Your task to perform on an android device: toggle pop-ups in chrome Image 0: 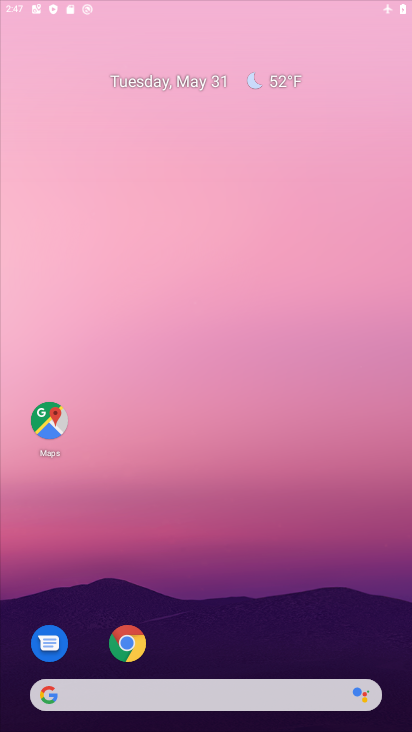
Step 0: press home button
Your task to perform on an android device: toggle pop-ups in chrome Image 1: 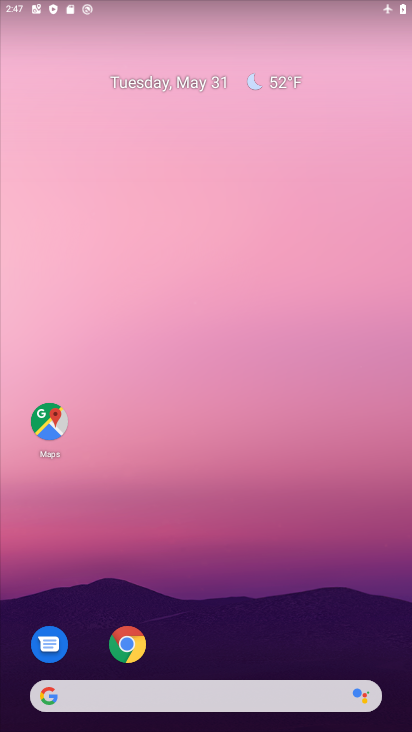
Step 1: click (135, 646)
Your task to perform on an android device: toggle pop-ups in chrome Image 2: 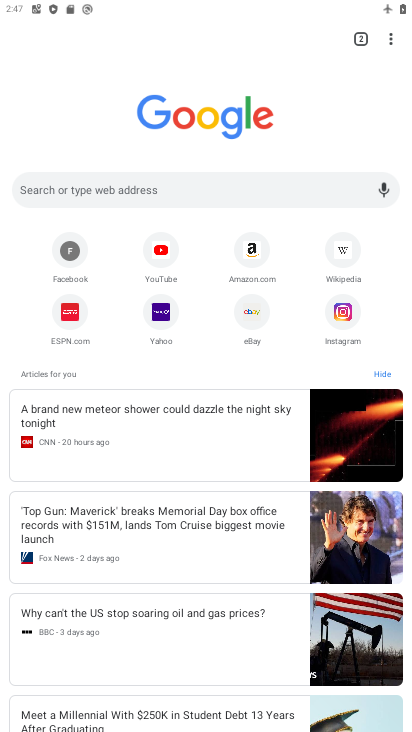
Step 2: click (391, 40)
Your task to perform on an android device: toggle pop-ups in chrome Image 3: 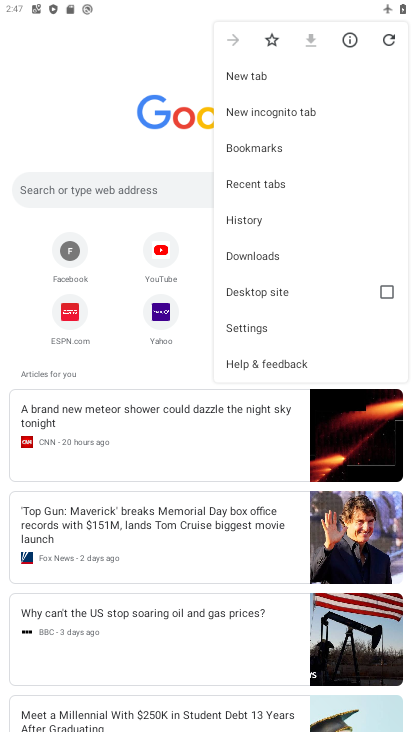
Step 3: click (264, 332)
Your task to perform on an android device: toggle pop-ups in chrome Image 4: 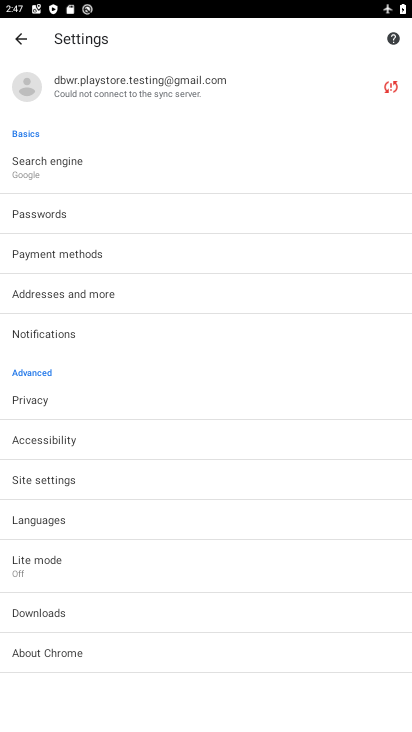
Step 4: click (37, 484)
Your task to perform on an android device: toggle pop-ups in chrome Image 5: 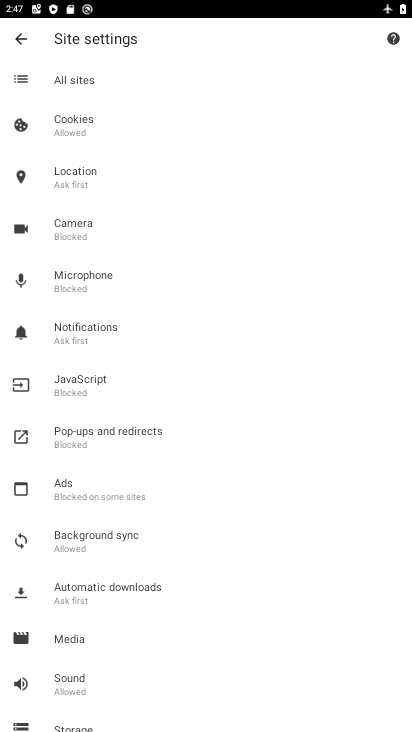
Step 5: click (76, 450)
Your task to perform on an android device: toggle pop-ups in chrome Image 6: 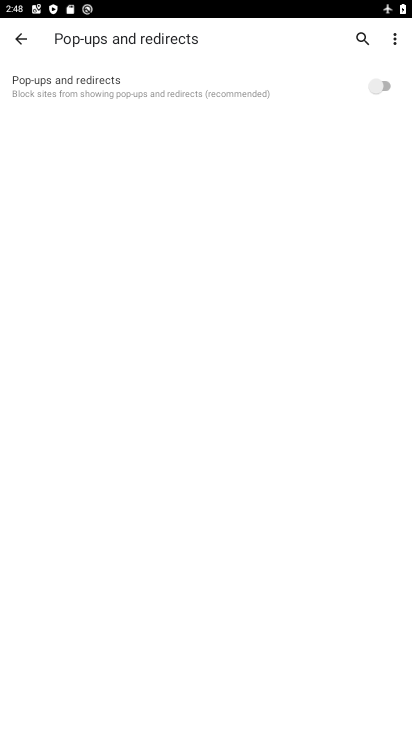
Step 6: click (379, 83)
Your task to perform on an android device: toggle pop-ups in chrome Image 7: 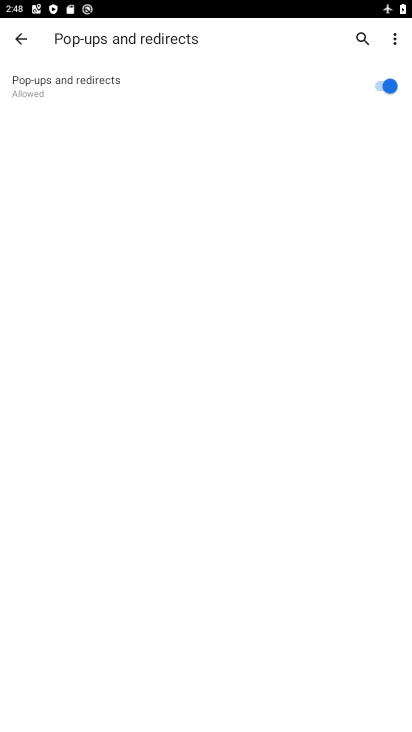
Step 7: task complete